Your task to perform on an android device: Do I have any events today? Image 0: 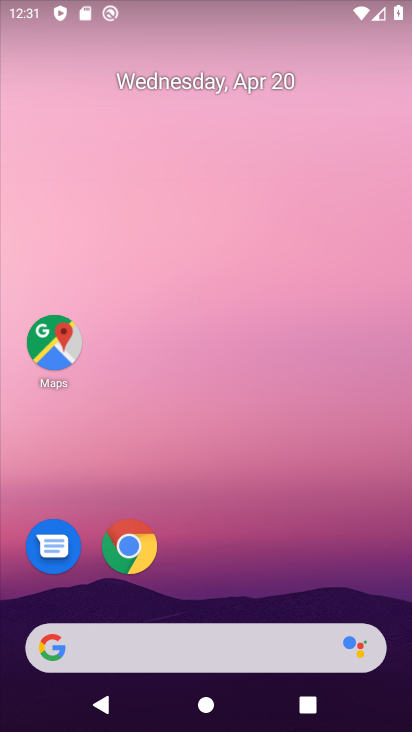
Step 0: drag from (211, 725) to (207, 244)
Your task to perform on an android device: Do I have any events today? Image 1: 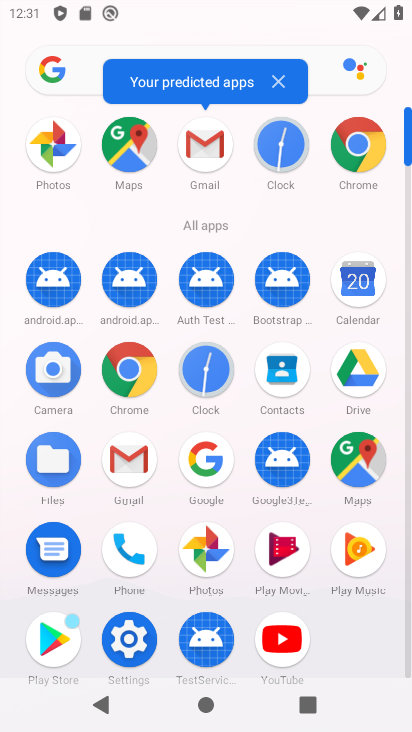
Step 1: click (360, 287)
Your task to perform on an android device: Do I have any events today? Image 2: 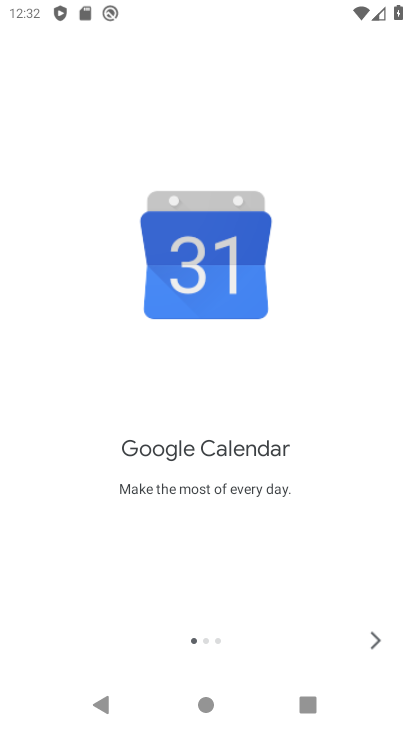
Step 2: click (374, 637)
Your task to perform on an android device: Do I have any events today? Image 3: 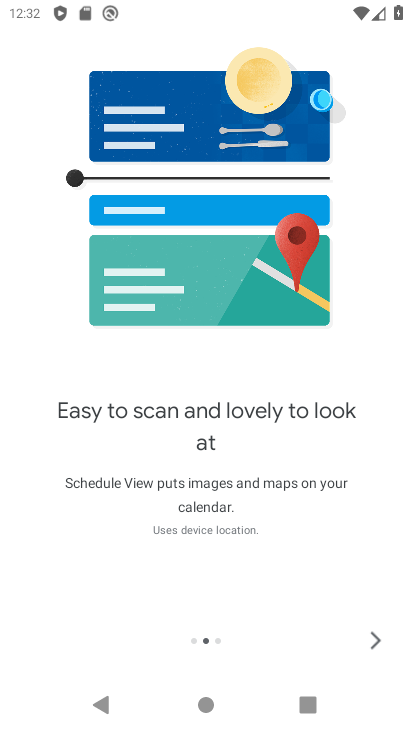
Step 3: click (374, 637)
Your task to perform on an android device: Do I have any events today? Image 4: 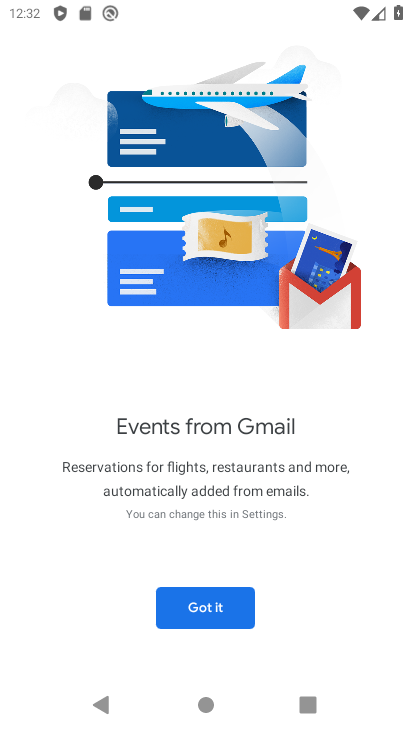
Step 4: click (210, 605)
Your task to perform on an android device: Do I have any events today? Image 5: 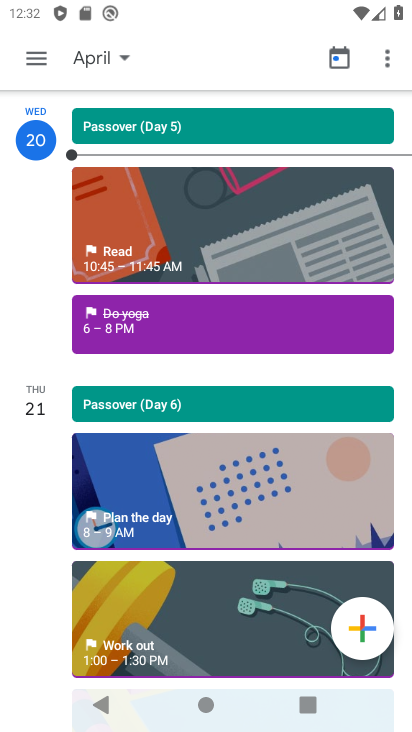
Step 5: click (102, 56)
Your task to perform on an android device: Do I have any events today? Image 6: 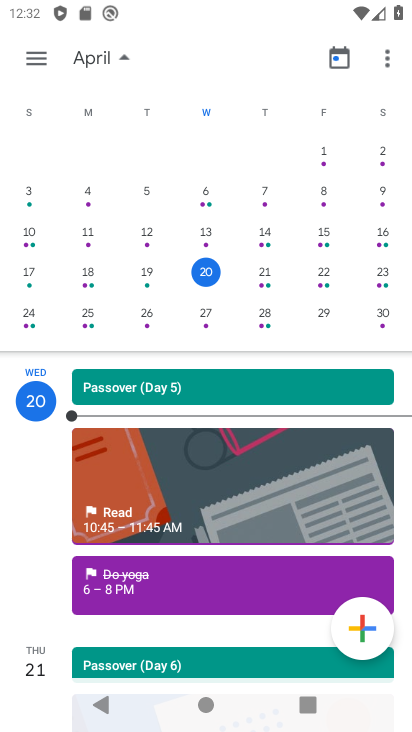
Step 6: click (38, 60)
Your task to perform on an android device: Do I have any events today? Image 7: 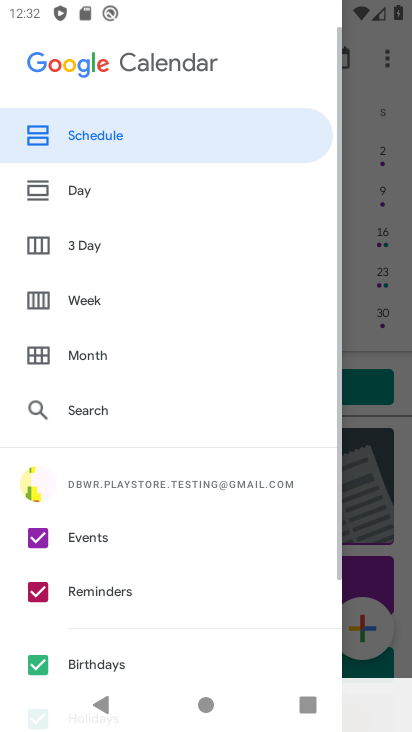
Step 7: click (40, 590)
Your task to perform on an android device: Do I have any events today? Image 8: 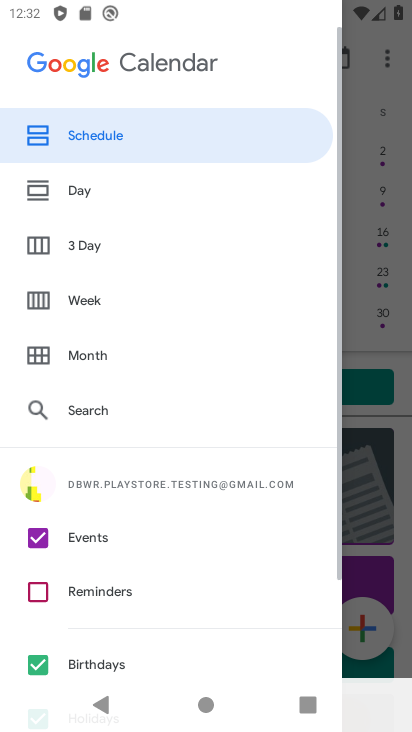
Step 8: drag from (203, 646) to (209, 353)
Your task to perform on an android device: Do I have any events today? Image 9: 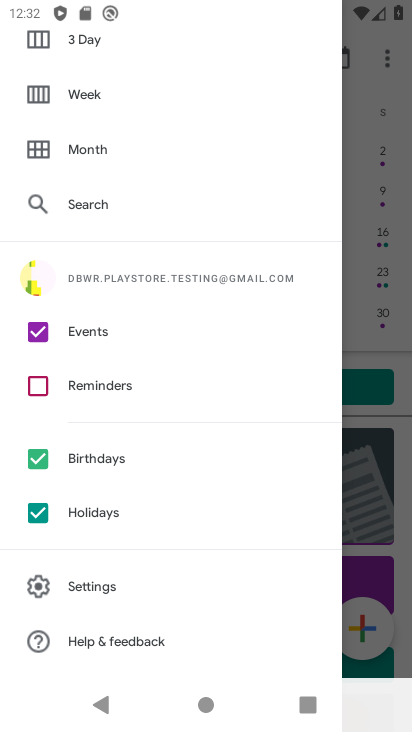
Step 9: click (35, 512)
Your task to perform on an android device: Do I have any events today? Image 10: 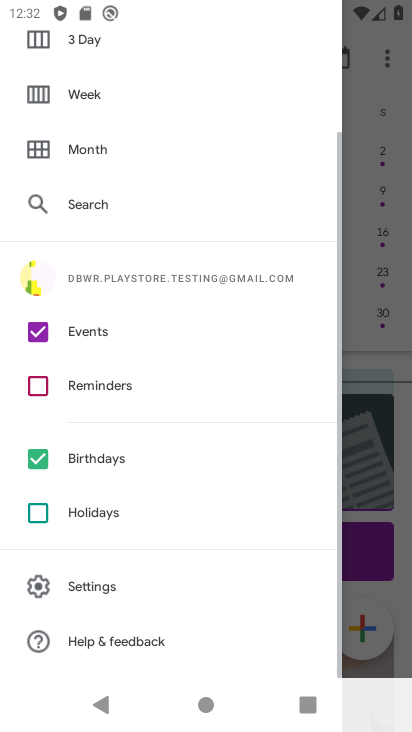
Step 10: click (39, 456)
Your task to perform on an android device: Do I have any events today? Image 11: 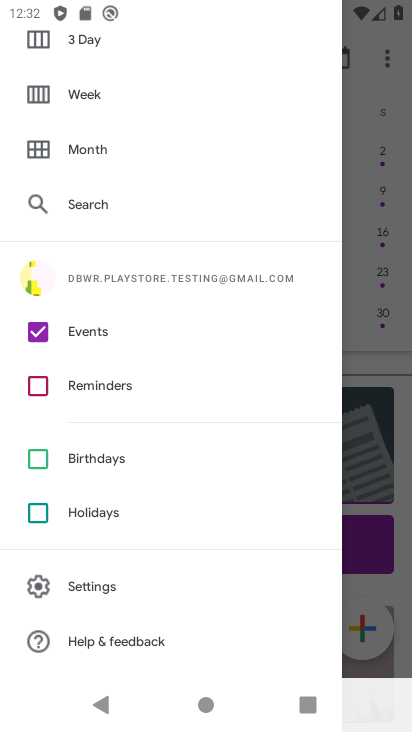
Step 11: drag from (209, 103) to (202, 475)
Your task to perform on an android device: Do I have any events today? Image 12: 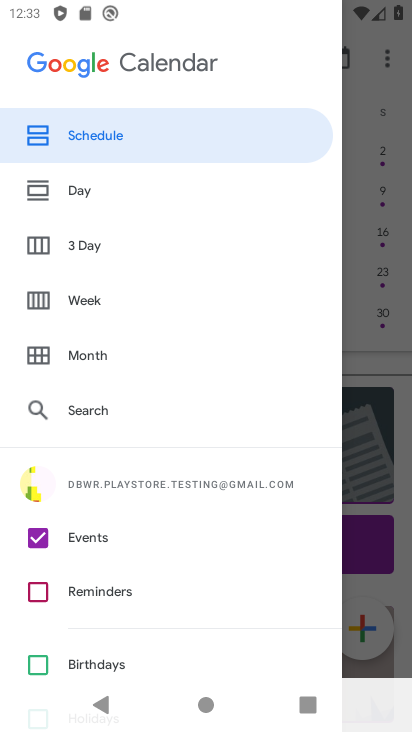
Step 12: click (359, 135)
Your task to perform on an android device: Do I have any events today? Image 13: 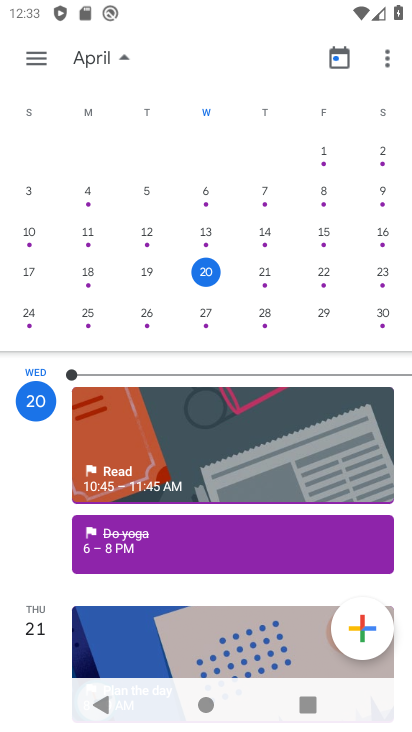
Step 13: task complete